Your task to perform on an android device: turn off smart reply in the gmail app Image 0: 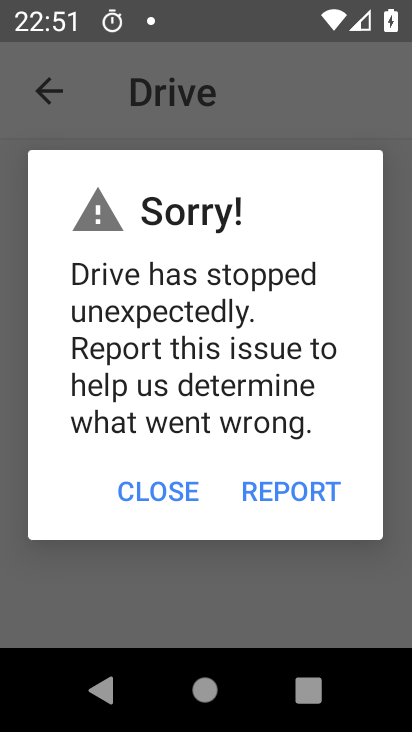
Step 0: press home button
Your task to perform on an android device: turn off smart reply in the gmail app Image 1: 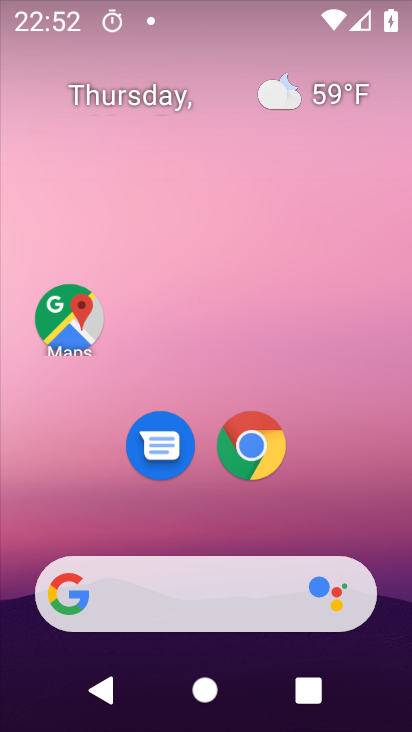
Step 1: drag from (159, 605) to (162, 245)
Your task to perform on an android device: turn off smart reply in the gmail app Image 2: 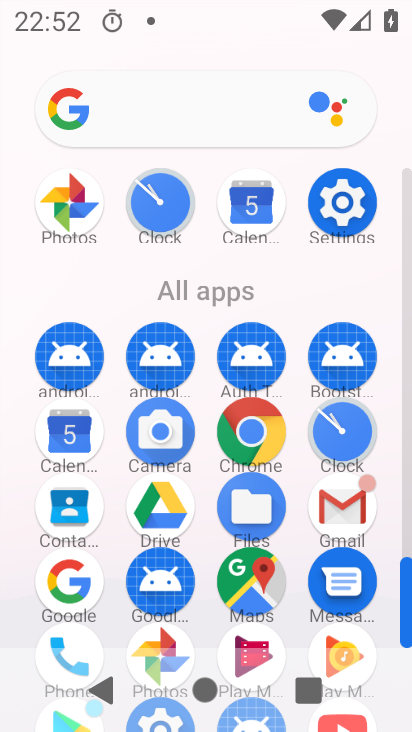
Step 2: click (334, 508)
Your task to perform on an android device: turn off smart reply in the gmail app Image 3: 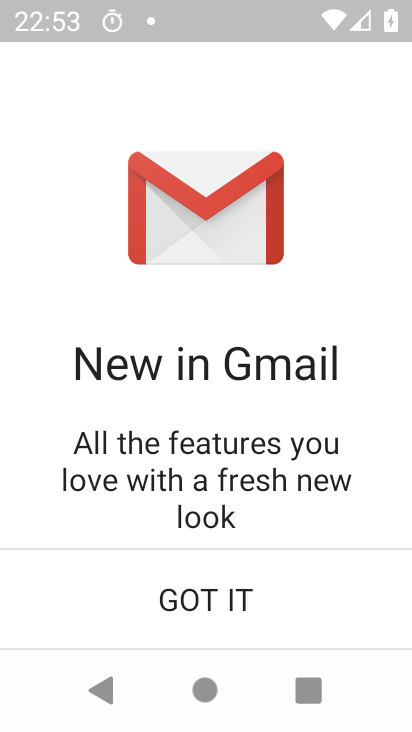
Step 3: click (248, 571)
Your task to perform on an android device: turn off smart reply in the gmail app Image 4: 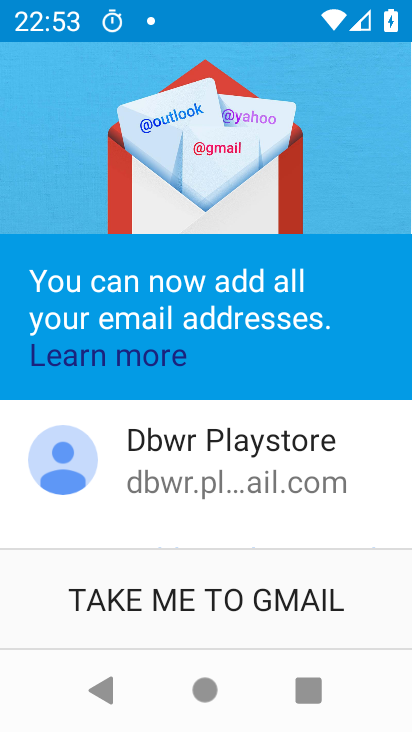
Step 4: click (239, 587)
Your task to perform on an android device: turn off smart reply in the gmail app Image 5: 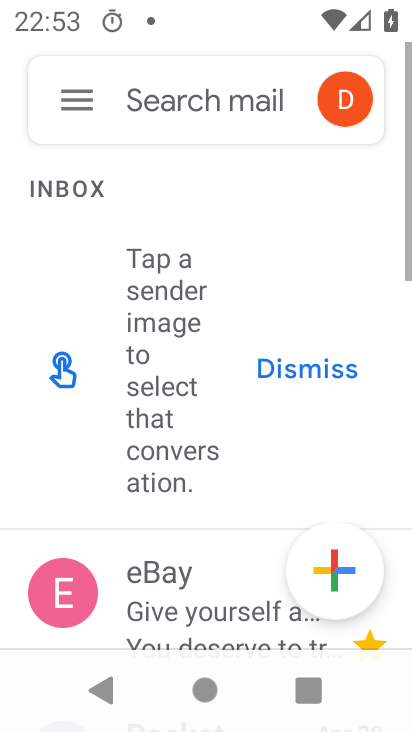
Step 5: click (63, 99)
Your task to perform on an android device: turn off smart reply in the gmail app Image 6: 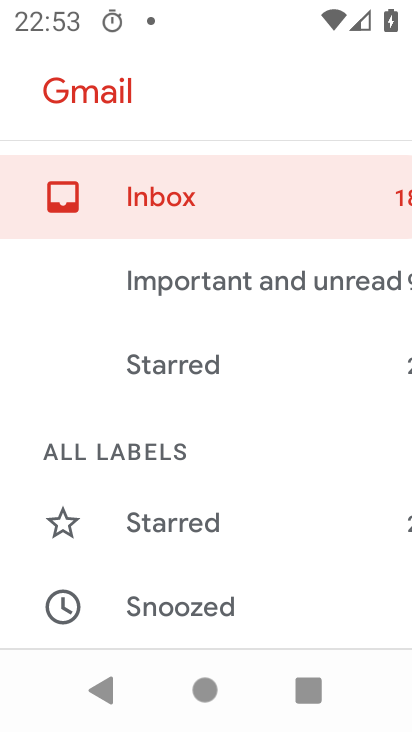
Step 6: drag from (158, 523) to (217, 57)
Your task to perform on an android device: turn off smart reply in the gmail app Image 7: 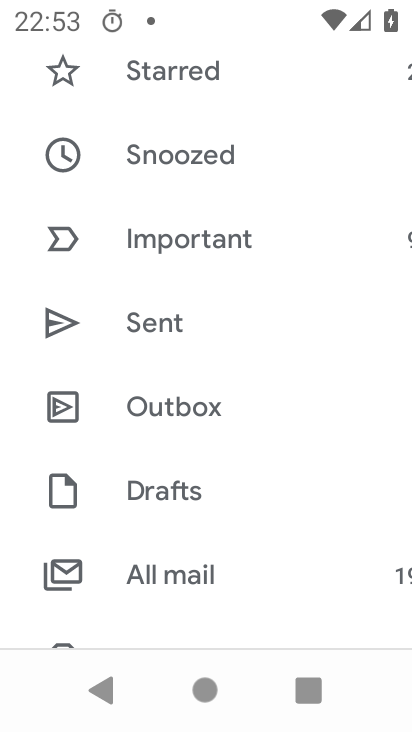
Step 7: drag from (259, 600) to (284, 215)
Your task to perform on an android device: turn off smart reply in the gmail app Image 8: 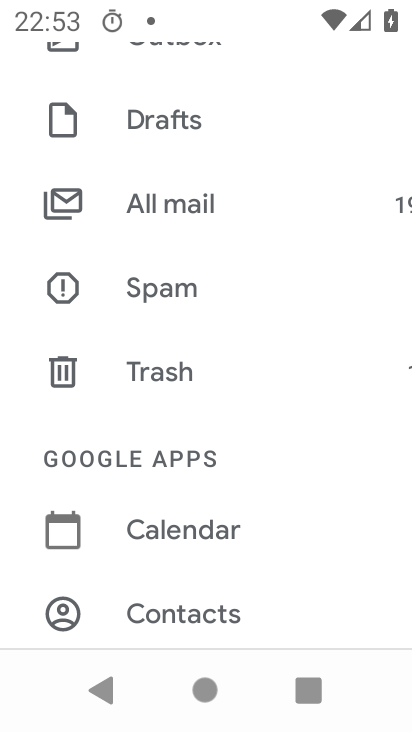
Step 8: drag from (194, 477) to (197, 28)
Your task to perform on an android device: turn off smart reply in the gmail app Image 9: 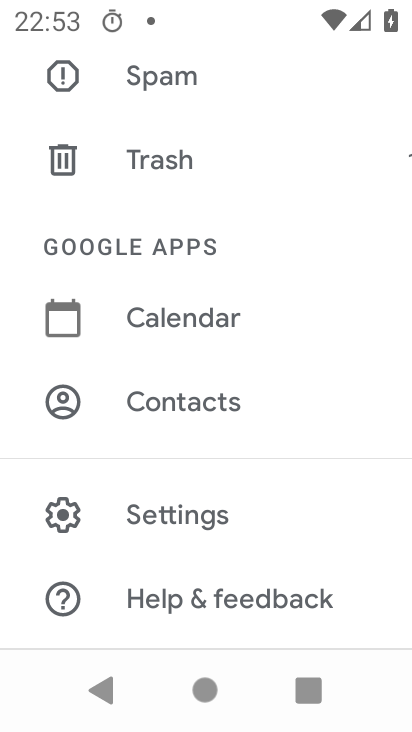
Step 9: click (184, 507)
Your task to perform on an android device: turn off smart reply in the gmail app Image 10: 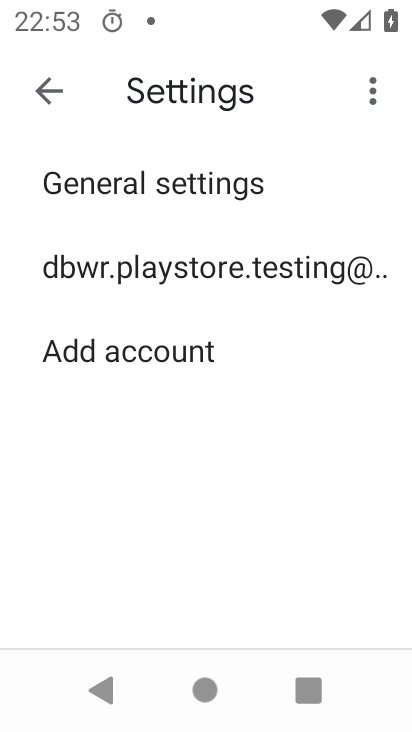
Step 10: click (184, 271)
Your task to perform on an android device: turn off smart reply in the gmail app Image 11: 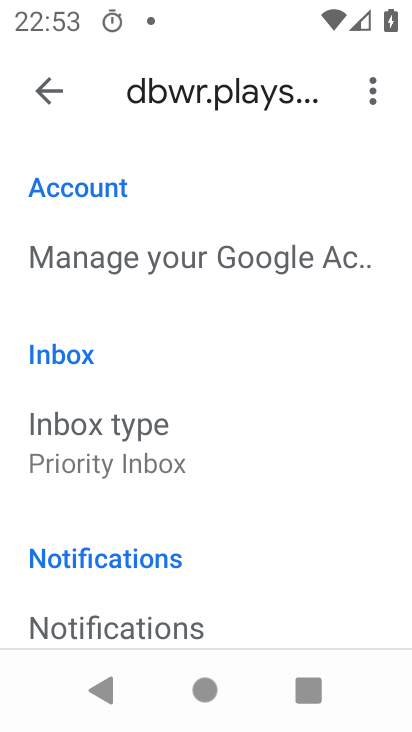
Step 11: drag from (246, 533) to (305, 13)
Your task to perform on an android device: turn off smart reply in the gmail app Image 12: 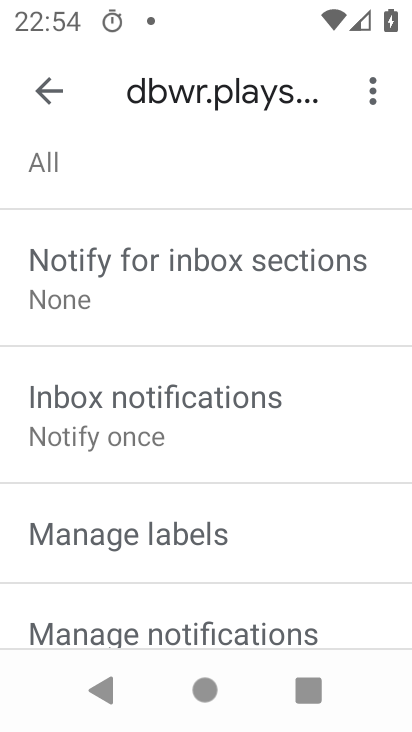
Step 12: drag from (155, 596) to (207, 209)
Your task to perform on an android device: turn off smart reply in the gmail app Image 13: 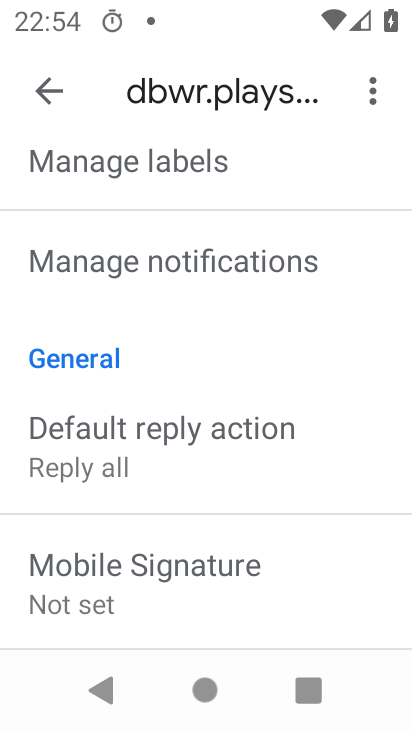
Step 13: drag from (123, 579) to (177, 97)
Your task to perform on an android device: turn off smart reply in the gmail app Image 14: 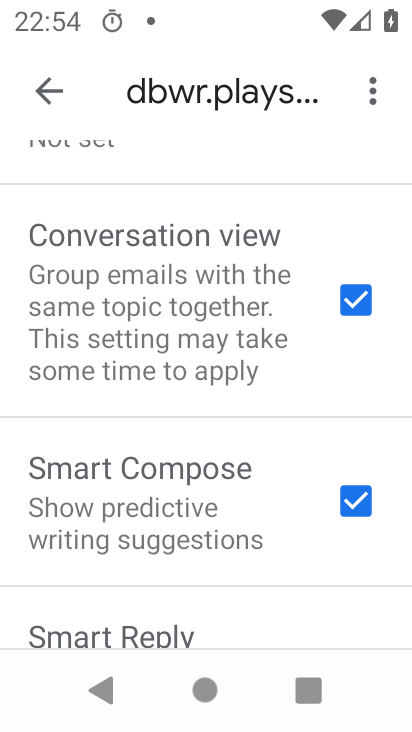
Step 14: drag from (237, 532) to (257, 265)
Your task to perform on an android device: turn off smart reply in the gmail app Image 15: 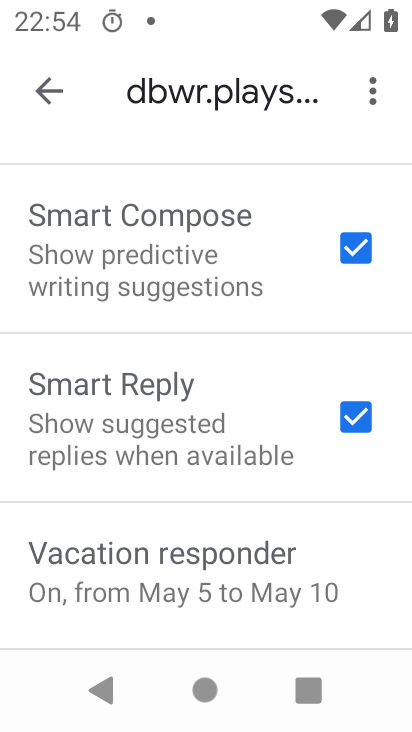
Step 15: click (348, 421)
Your task to perform on an android device: turn off smart reply in the gmail app Image 16: 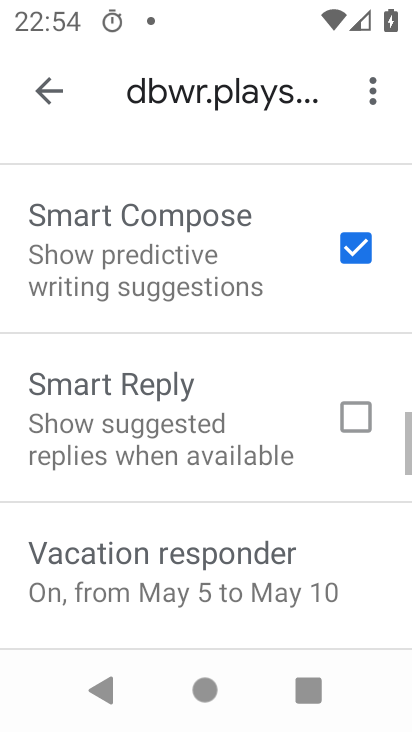
Step 16: task complete